Your task to perform on an android device: choose inbox layout in the gmail app Image 0: 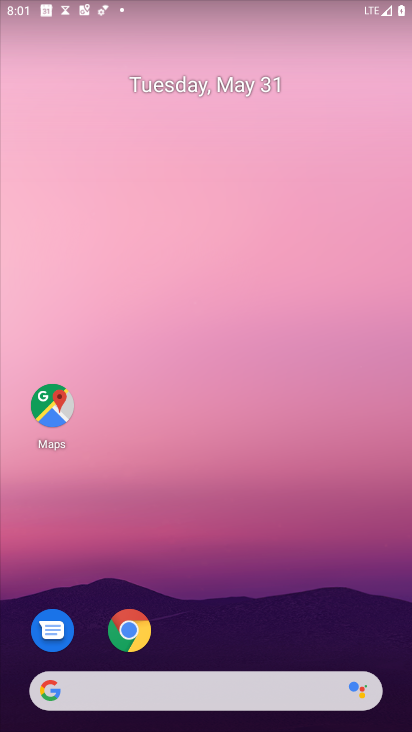
Step 0: drag from (262, 620) to (201, 116)
Your task to perform on an android device: choose inbox layout in the gmail app Image 1: 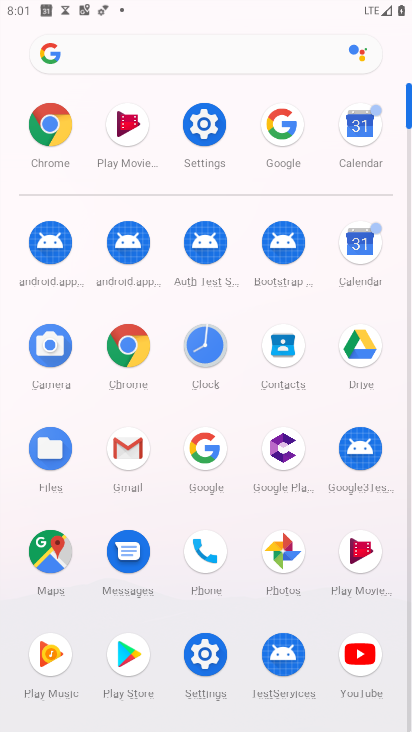
Step 1: click (126, 449)
Your task to perform on an android device: choose inbox layout in the gmail app Image 2: 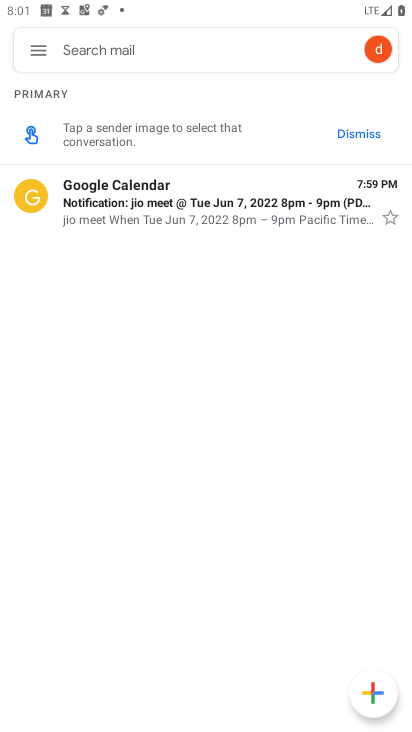
Step 2: click (38, 51)
Your task to perform on an android device: choose inbox layout in the gmail app Image 3: 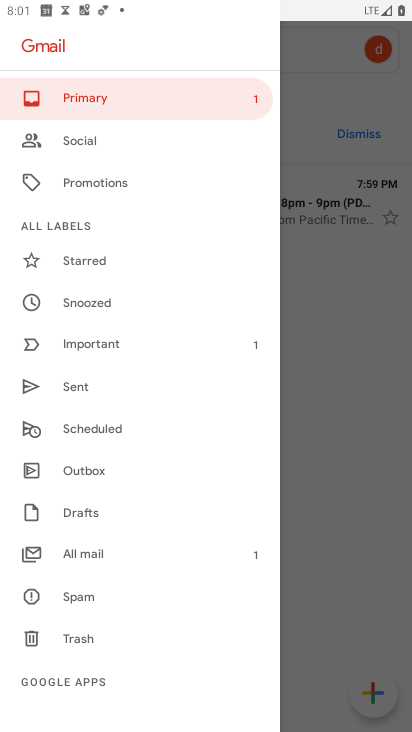
Step 3: drag from (109, 367) to (134, 286)
Your task to perform on an android device: choose inbox layout in the gmail app Image 4: 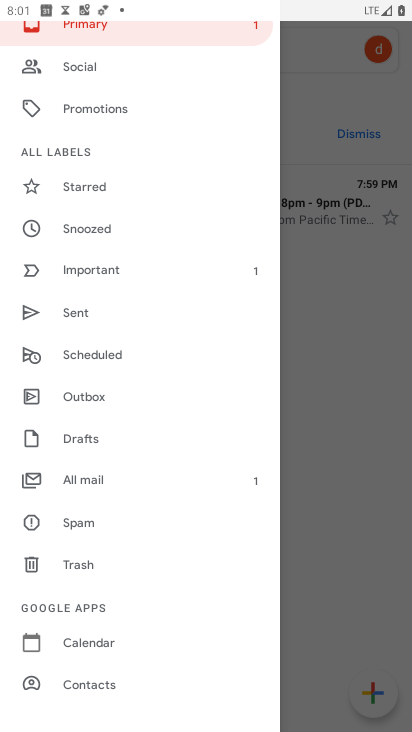
Step 4: drag from (108, 488) to (161, 387)
Your task to perform on an android device: choose inbox layout in the gmail app Image 5: 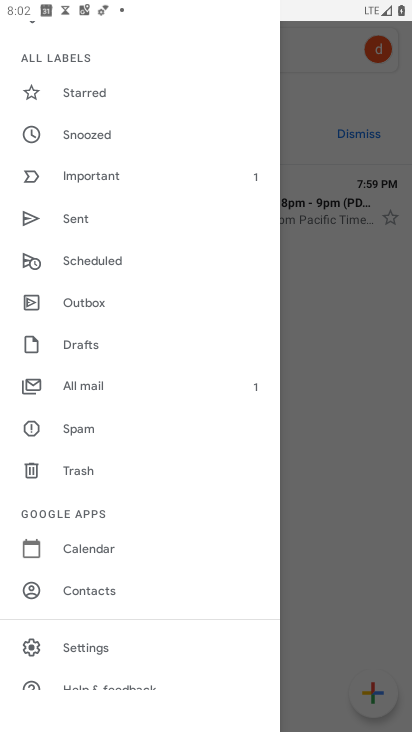
Step 5: click (94, 648)
Your task to perform on an android device: choose inbox layout in the gmail app Image 6: 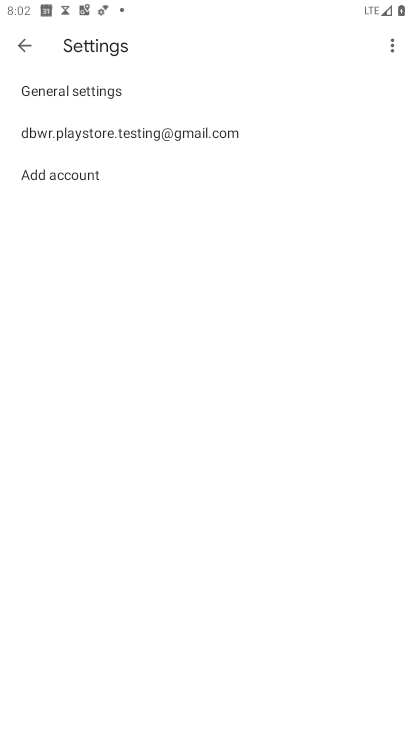
Step 6: click (162, 137)
Your task to perform on an android device: choose inbox layout in the gmail app Image 7: 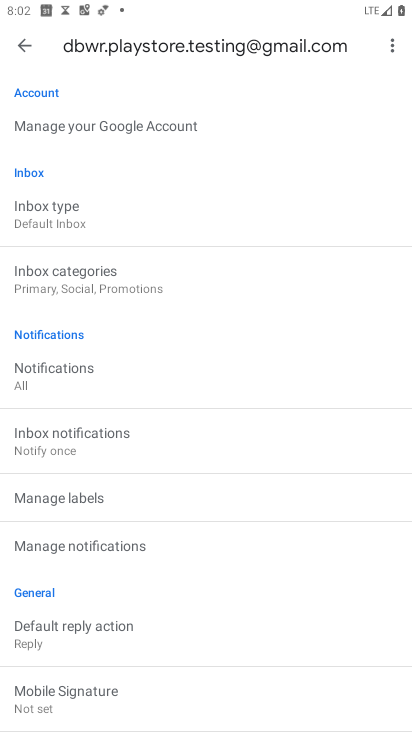
Step 7: click (67, 215)
Your task to perform on an android device: choose inbox layout in the gmail app Image 8: 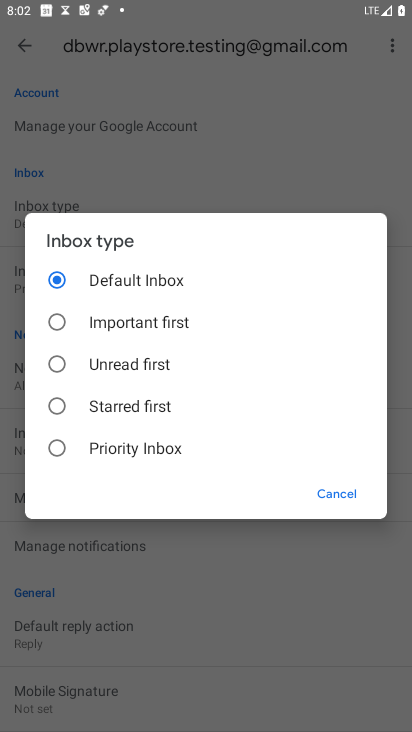
Step 8: click (61, 320)
Your task to perform on an android device: choose inbox layout in the gmail app Image 9: 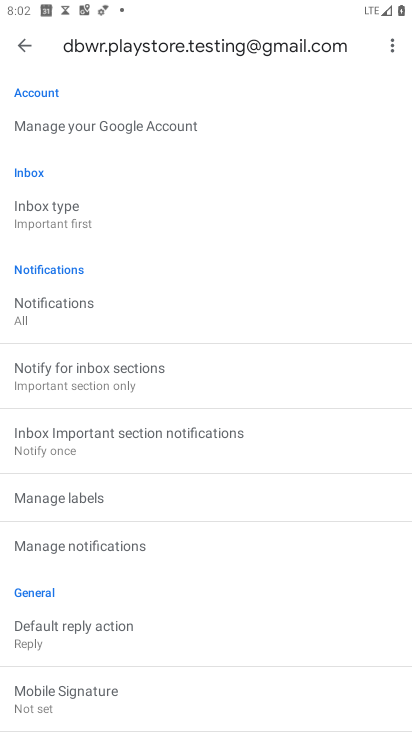
Step 9: task complete